Your task to perform on an android device: Go to Yahoo.com Image 0: 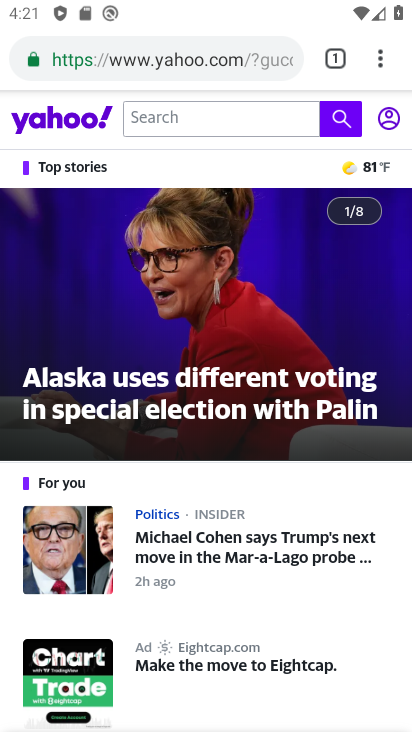
Step 0: click (48, 122)
Your task to perform on an android device: Go to Yahoo.com Image 1: 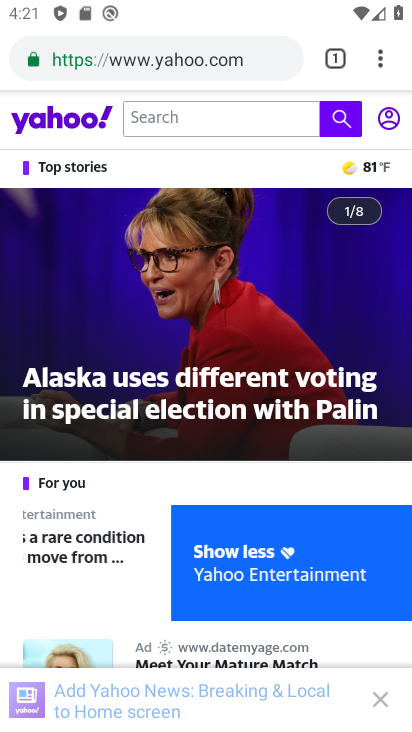
Step 1: task complete